Your task to perform on an android device: Do I have any events this weekend? Image 0: 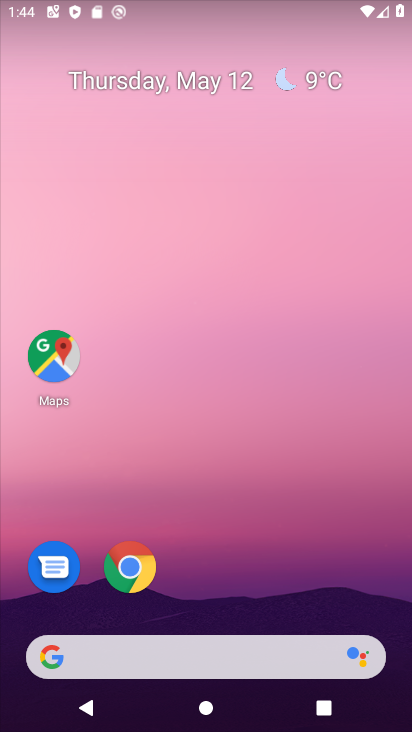
Step 0: drag from (290, 575) to (269, 213)
Your task to perform on an android device: Do I have any events this weekend? Image 1: 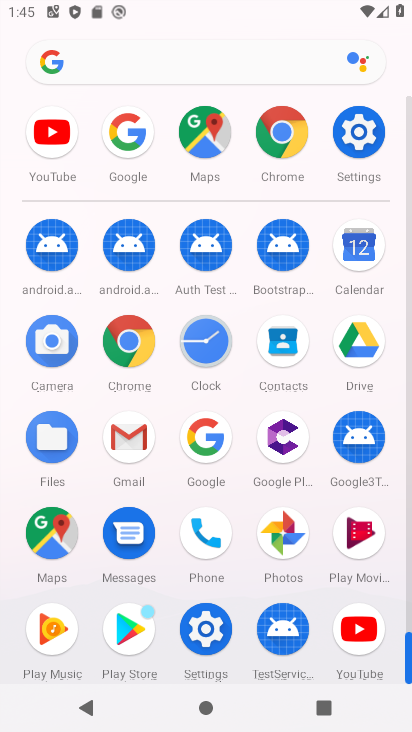
Step 1: click (363, 281)
Your task to perform on an android device: Do I have any events this weekend? Image 2: 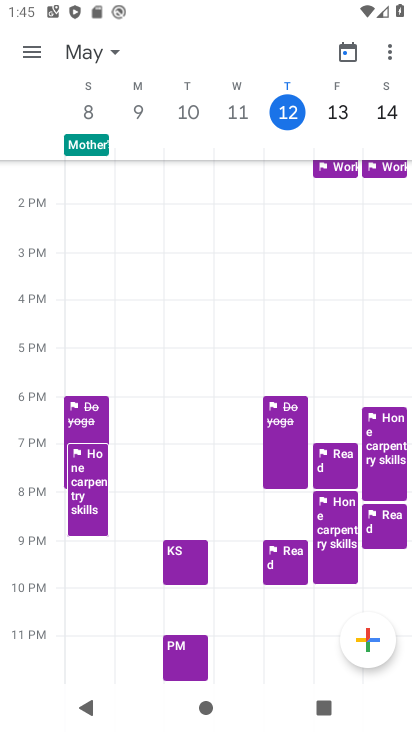
Step 2: task complete